Your task to perform on an android device: turn off smart reply in the gmail app Image 0: 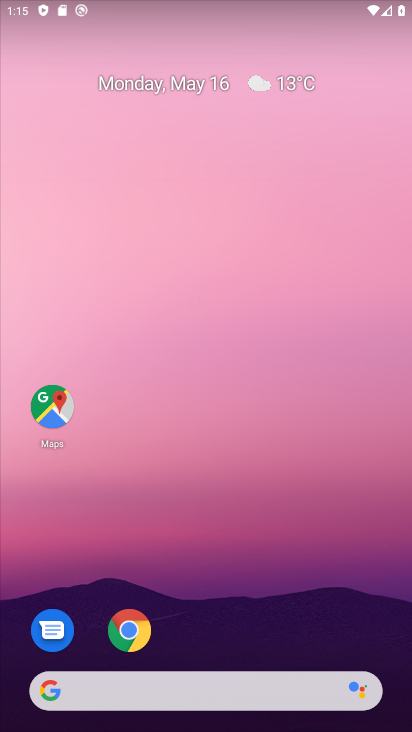
Step 0: drag from (276, 575) to (268, 255)
Your task to perform on an android device: turn off smart reply in the gmail app Image 1: 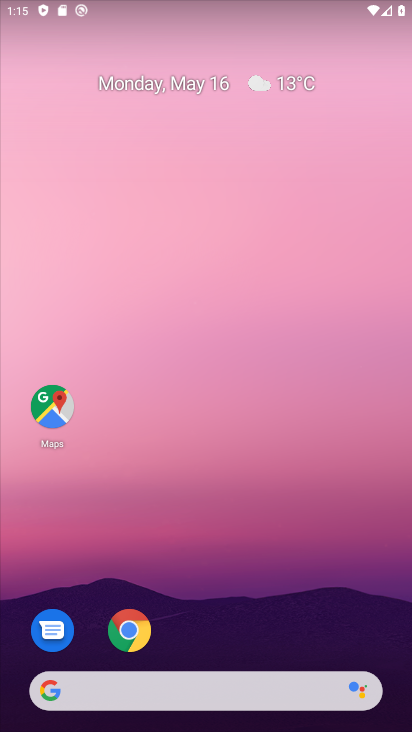
Step 1: drag from (329, 606) to (265, 39)
Your task to perform on an android device: turn off smart reply in the gmail app Image 2: 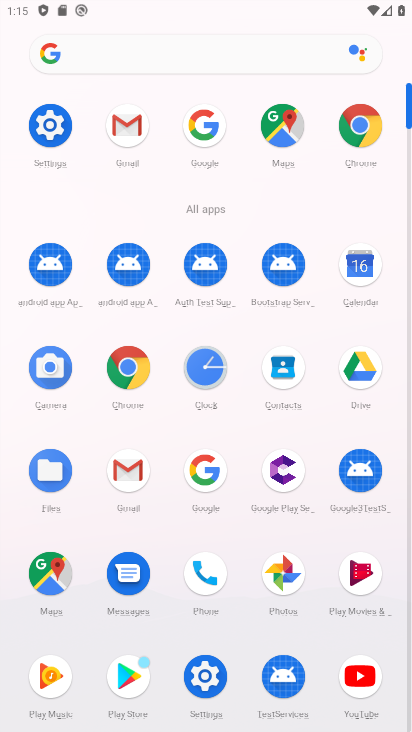
Step 2: click (139, 140)
Your task to perform on an android device: turn off smart reply in the gmail app Image 3: 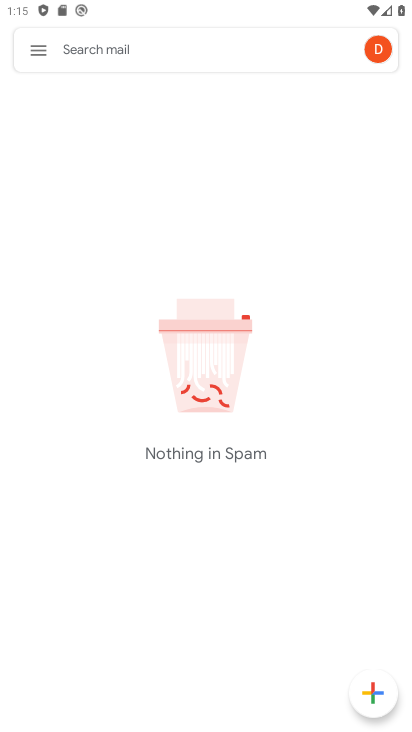
Step 3: click (45, 45)
Your task to perform on an android device: turn off smart reply in the gmail app Image 4: 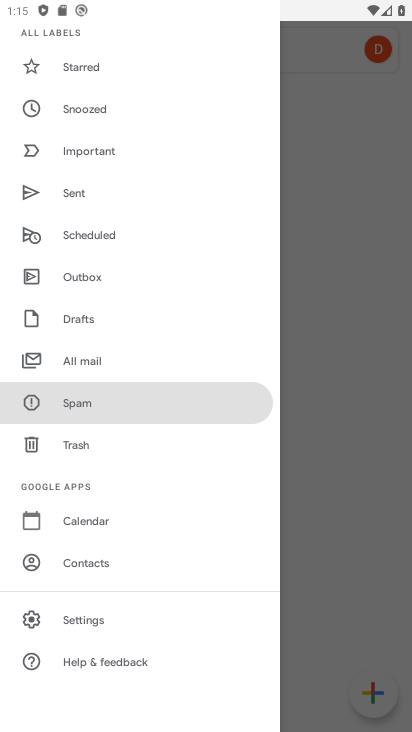
Step 4: drag from (223, 602) to (191, 152)
Your task to perform on an android device: turn off smart reply in the gmail app Image 5: 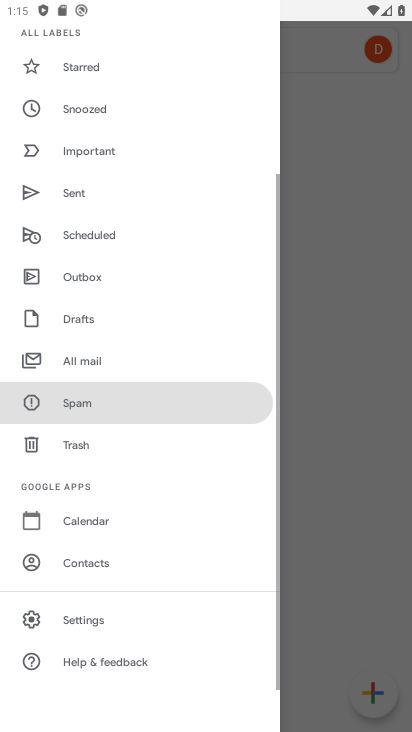
Step 5: drag from (141, 124) to (57, 541)
Your task to perform on an android device: turn off smart reply in the gmail app Image 6: 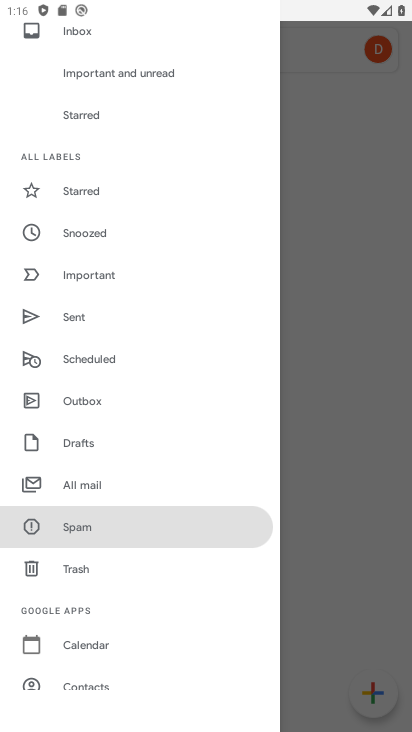
Step 6: drag from (146, 552) to (181, 4)
Your task to perform on an android device: turn off smart reply in the gmail app Image 7: 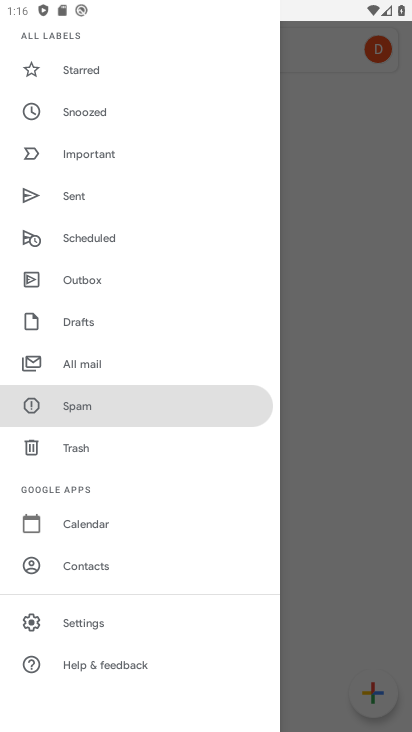
Step 7: click (96, 615)
Your task to perform on an android device: turn off smart reply in the gmail app Image 8: 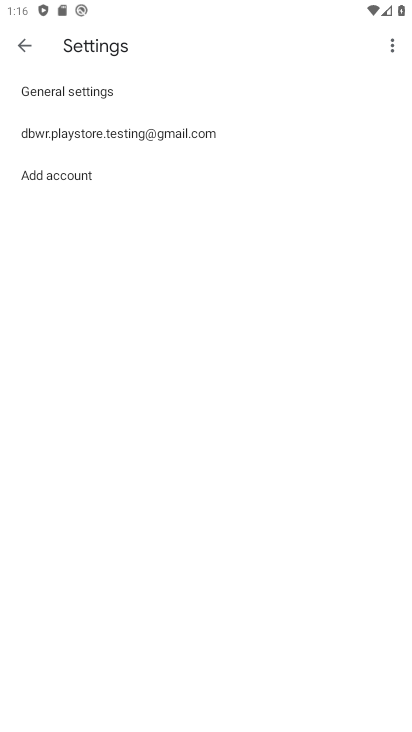
Step 8: task complete